Your task to perform on an android device: Go to calendar. Show me events next week Image 0: 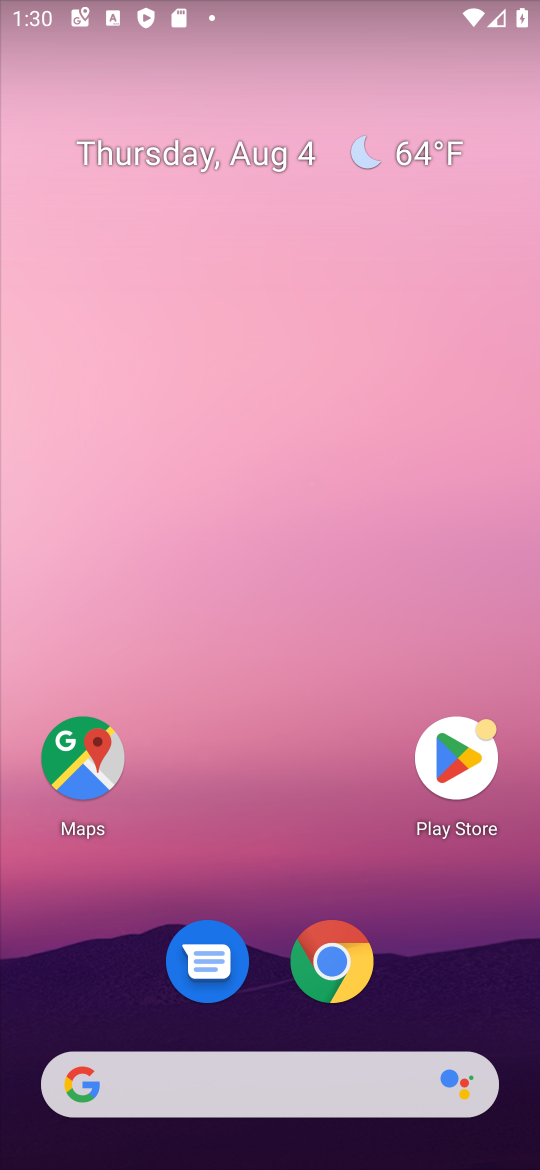
Step 0: drag from (274, 722) to (329, 3)
Your task to perform on an android device: Go to calendar. Show me events next week Image 1: 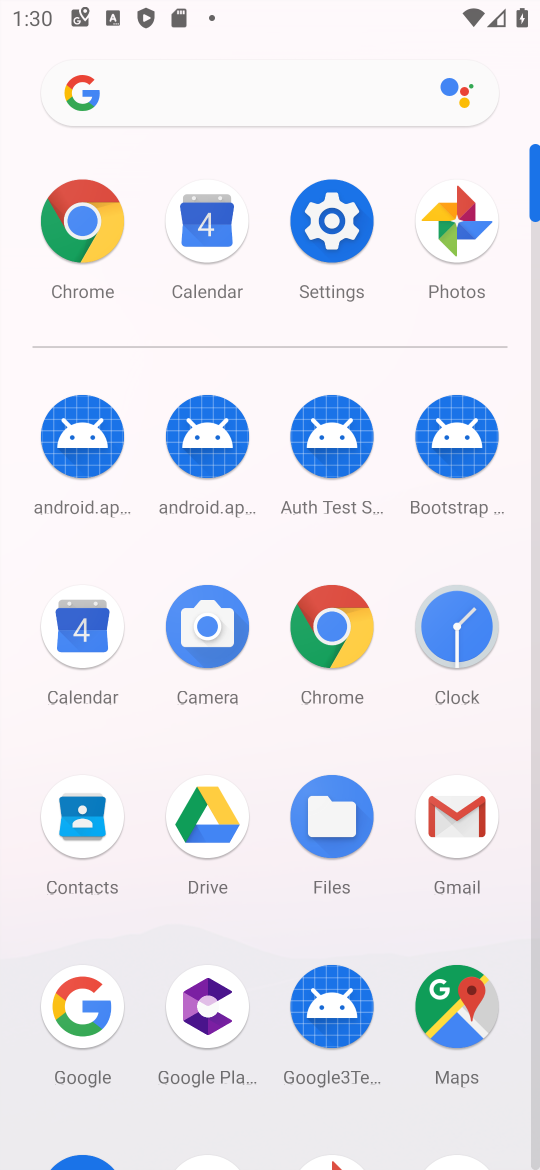
Step 1: click (83, 637)
Your task to perform on an android device: Go to calendar. Show me events next week Image 2: 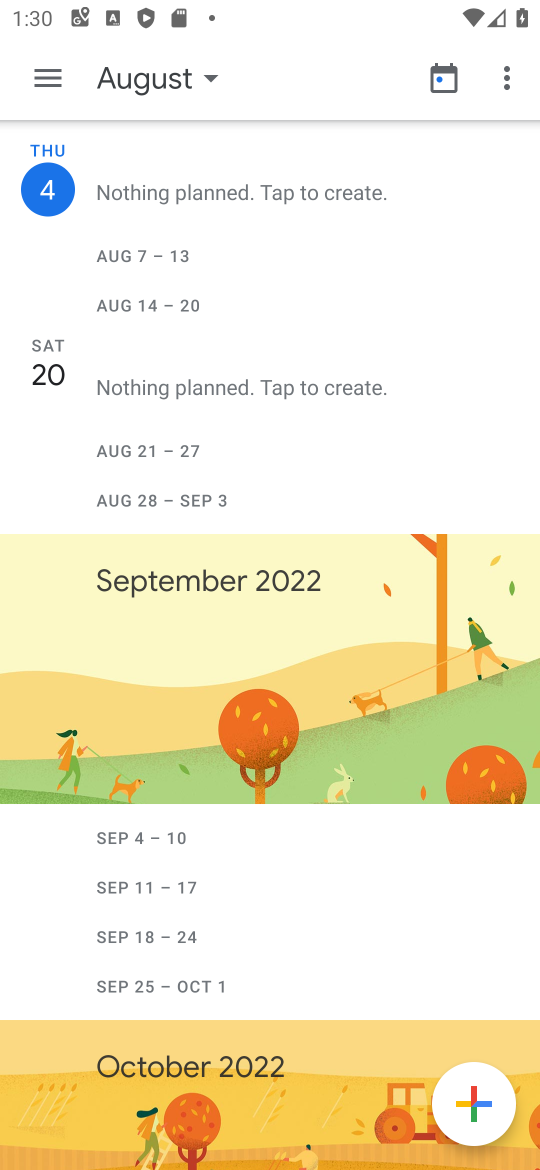
Step 2: click (45, 75)
Your task to perform on an android device: Go to calendar. Show me events next week Image 3: 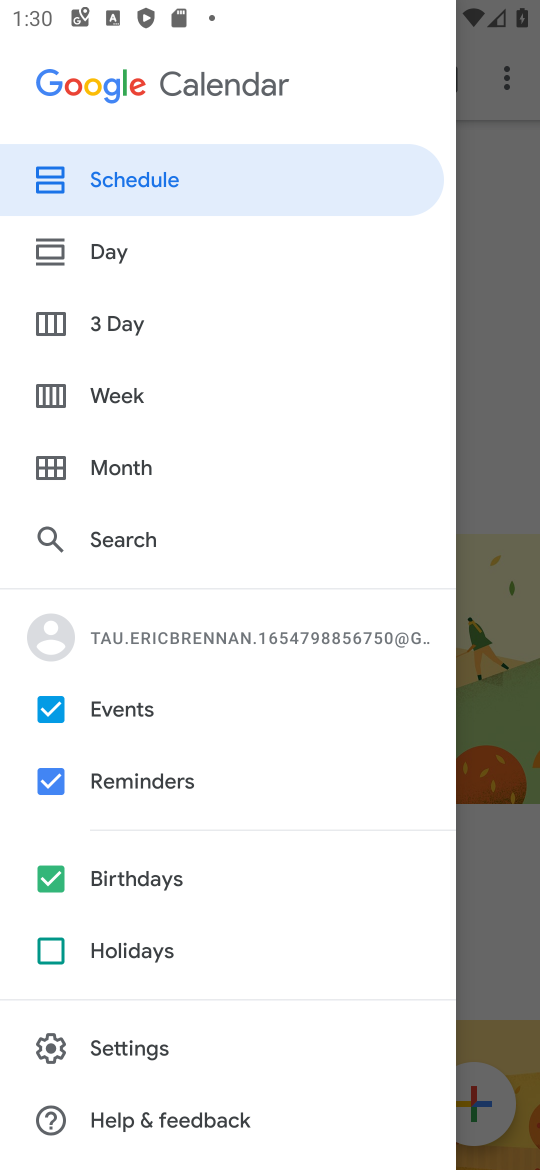
Step 3: click (57, 392)
Your task to perform on an android device: Go to calendar. Show me events next week Image 4: 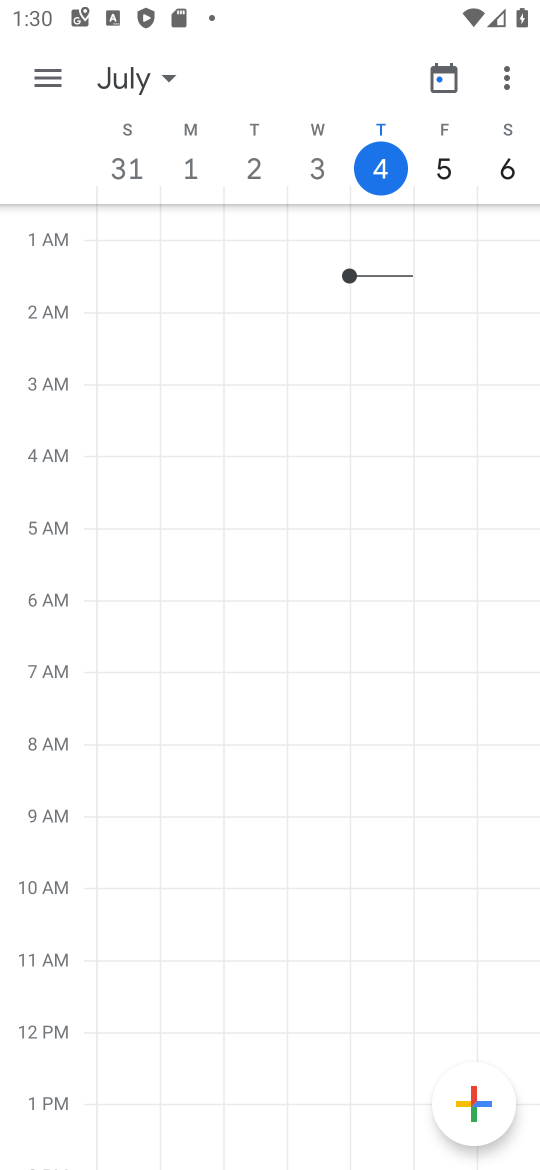
Step 4: task complete